Your task to perform on an android device: Search for seafood restaurants on Google Maps Image 0: 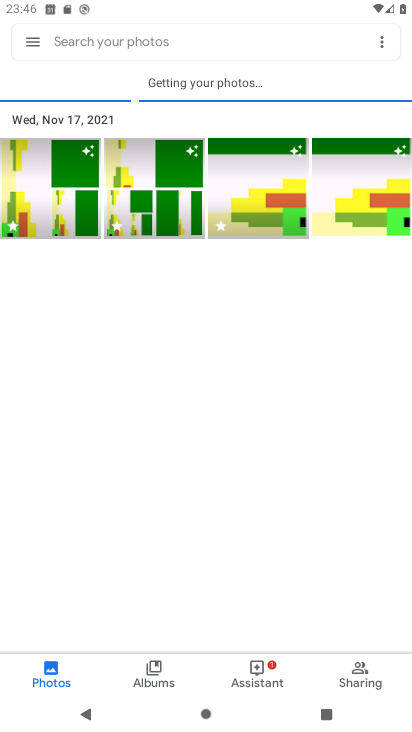
Step 0: press home button
Your task to perform on an android device: Search for seafood restaurants on Google Maps Image 1: 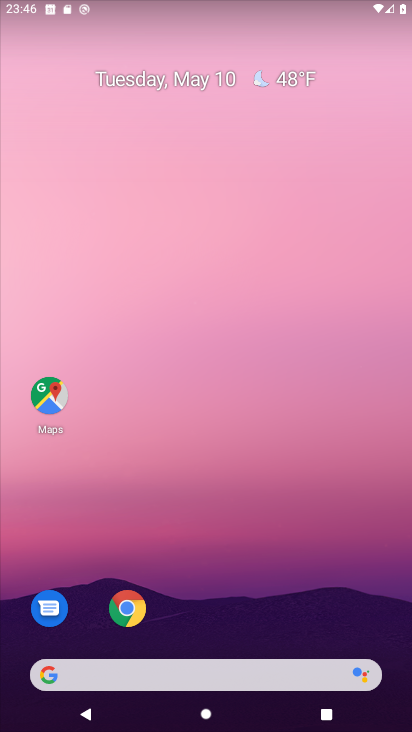
Step 1: click (53, 402)
Your task to perform on an android device: Search for seafood restaurants on Google Maps Image 2: 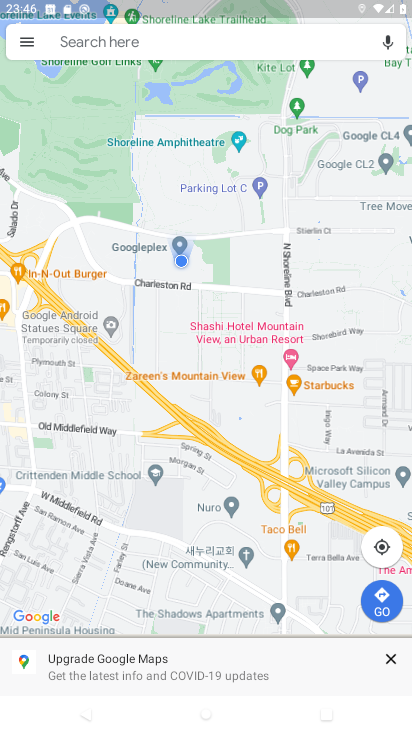
Step 2: click (158, 41)
Your task to perform on an android device: Search for seafood restaurants on Google Maps Image 3: 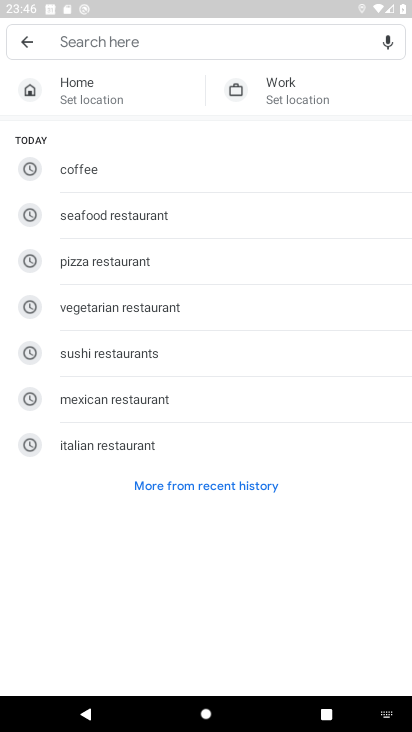
Step 3: click (144, 228)
Your task to perform on an android device: Search for seafood restaurants on Google Maps Image 4: 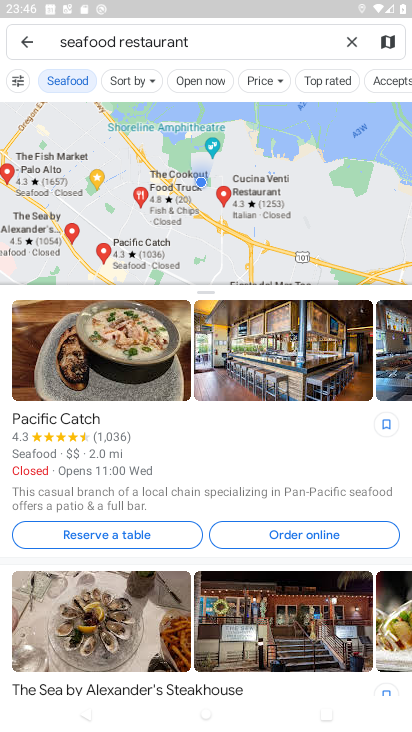
Step 4: task complete